Your task to perform on an android device: Open Chrome and go to the settings page Image 0: 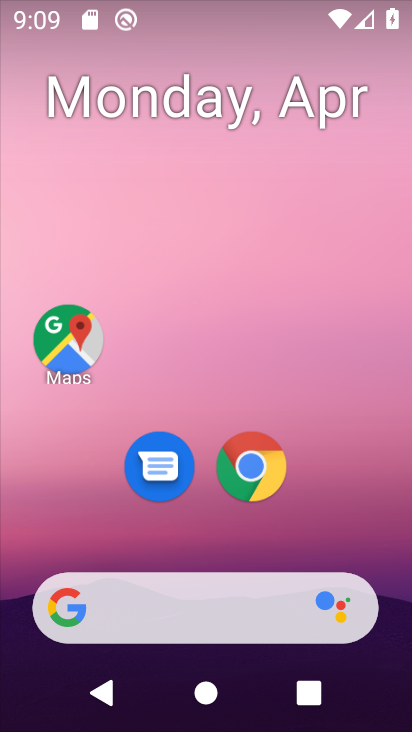
Step 0: click (244, 478)
Your task to perform on an android device: Open Chrome and go to the settings page Image 1: 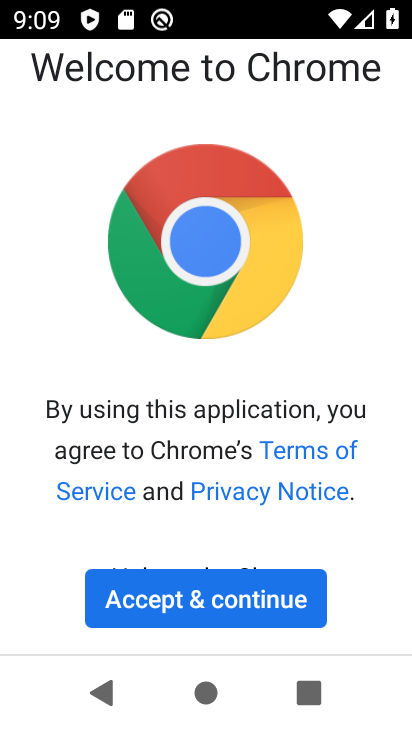
Step 1: click (246, 596)
Your task to perform on an android device: Open Chrome and go to the settings page Image 2: 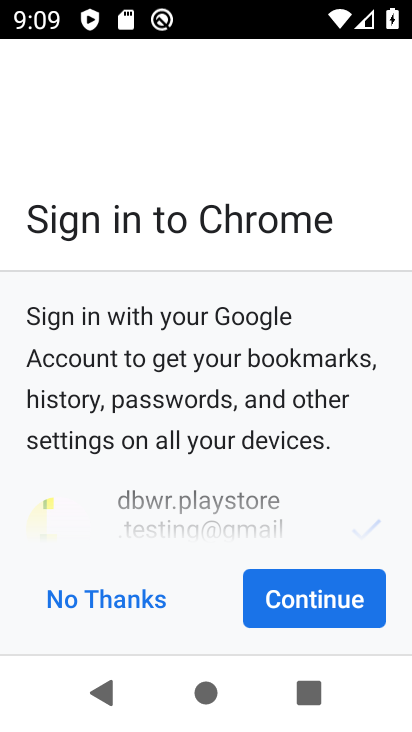
Step 2: click (293, 587)
Your task to perform on an android device: Open Chrome and go to the settings page Image 3: 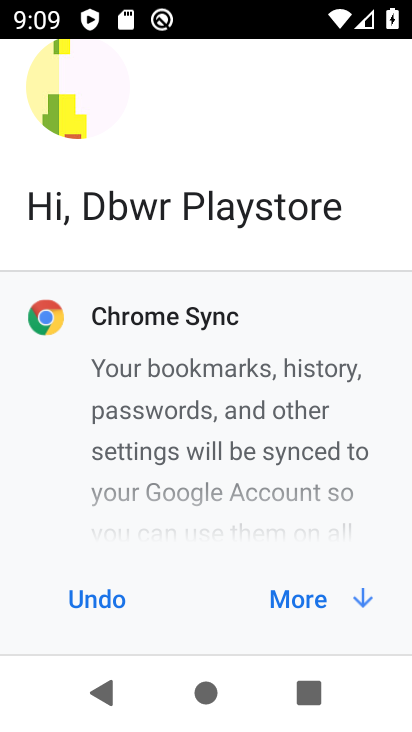
Step 3: click (300, 608)
Your task to perform on an android device: Open Chrome and go to the settings page Image 4: 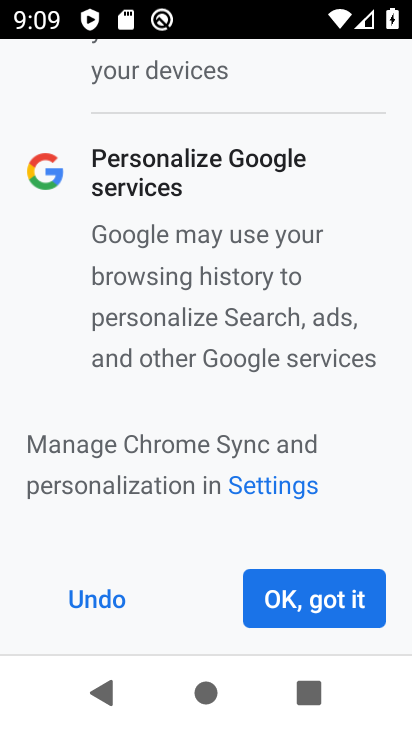
Step 4: click (339, 596)
Your task to perform on an android device: Open Chrome and go to the settings page Image 5: 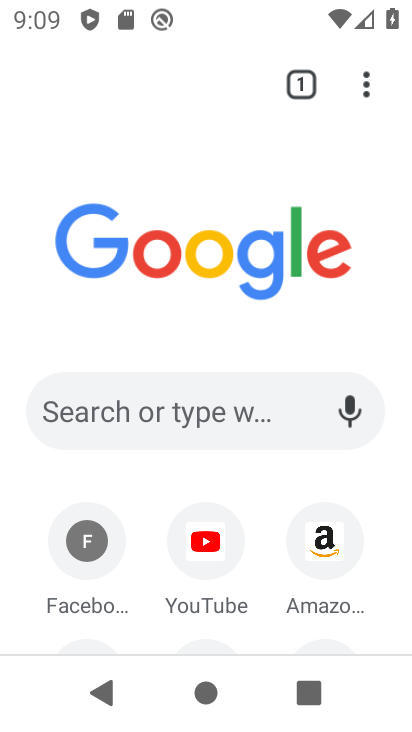
Step 5: click (372, 92)
Your task to perform on an android device: Open Chrome and go to the settings page Image 6: 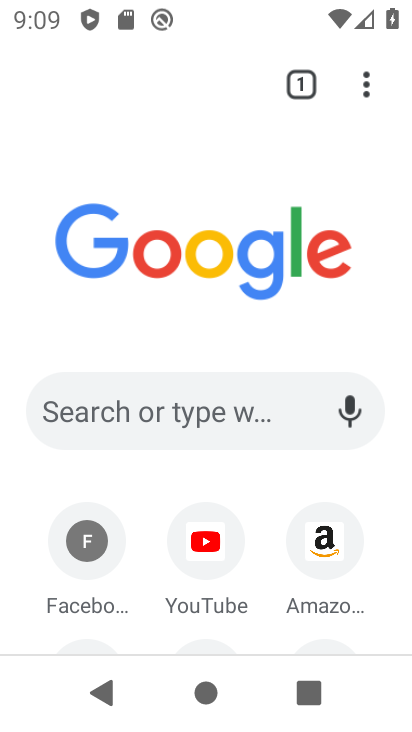
Step 6: click (363, 82)
Your task to perform on an android device: Open Chrome and go to the settings page Image 7: 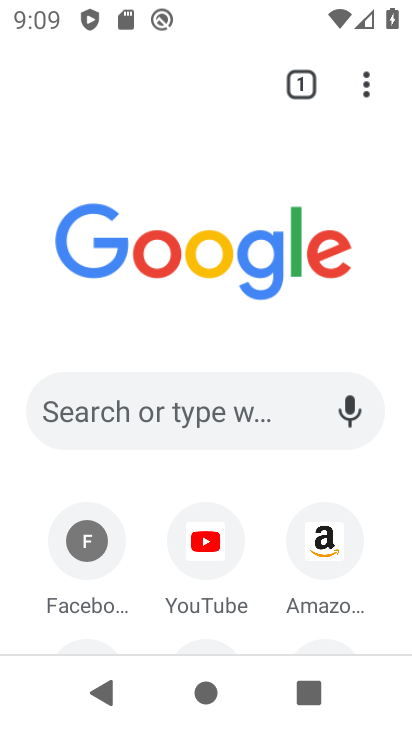
Step 7: click (363, 82)
Your task to perform on an android device: Open Chrome and go to the settings page Image 8: 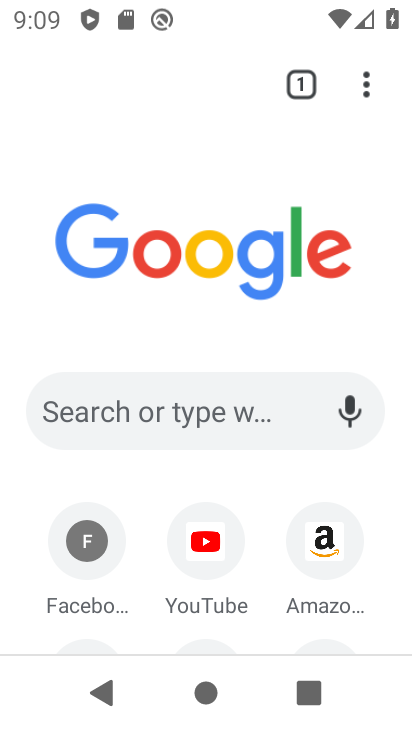
Step 8: click (358, 89)
Your task to perform on an android device: Open Chrome and go to the settings page Image 9: 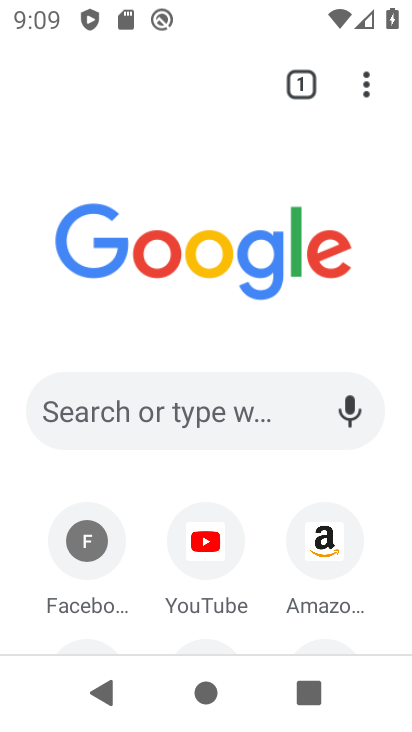
Step 9: click (358, 89)
Your task to perform on an android device: Open Chrome and go to the settings page Image 10: 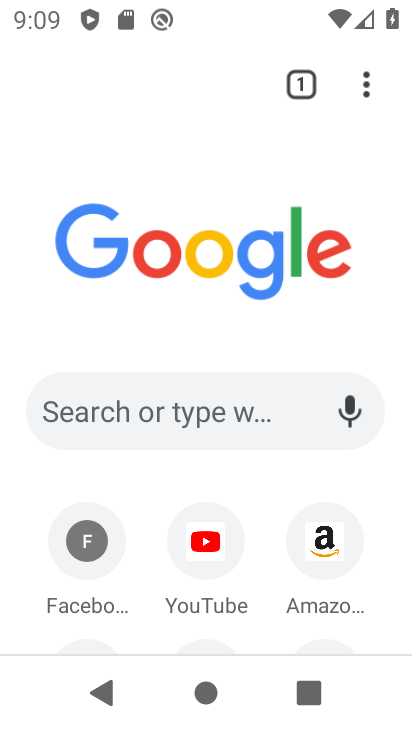
Step 10: click (364, 100)
Your task to perform on an android device: Open Chrome and go to the settings page Image 11: 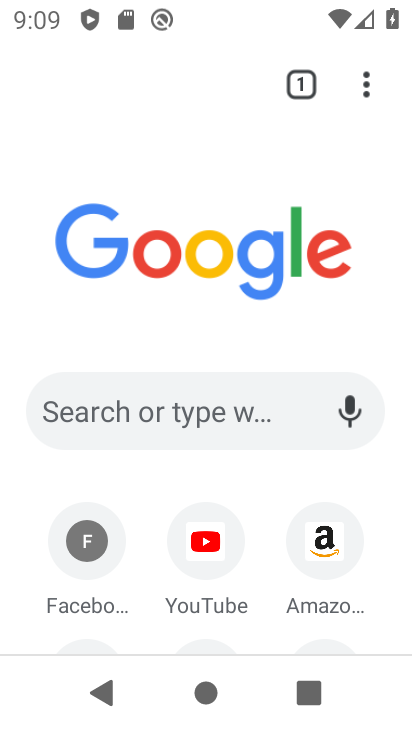
Step 11: click (362, 90)
Your task to perform on an android device: Open Chrome and go to the settings page Image 12: 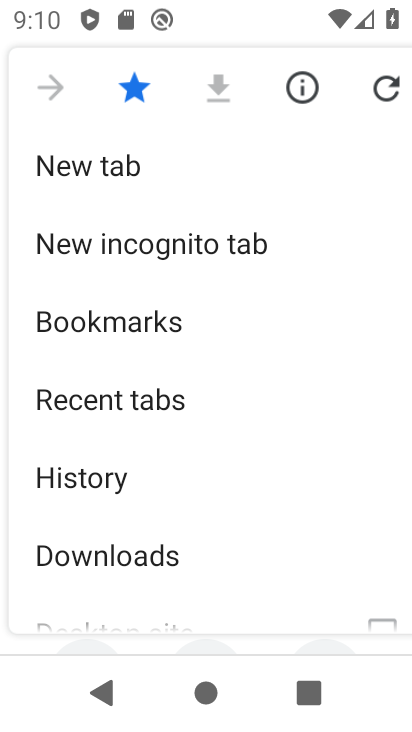
Step 12: drag from (147, 476) to (82, 117)
Your task to perform on an android device: Open Chrome and go to the settings page Image 13: 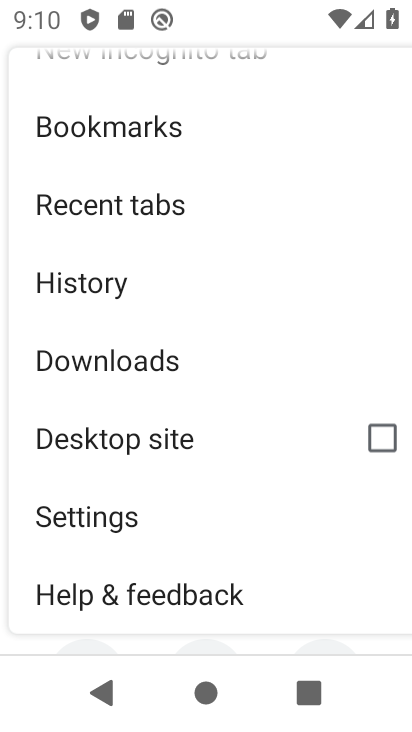
Step 13: click (117, 513)
Your task to perform on an android device: Open Chrome and go to the settings page Image 14: 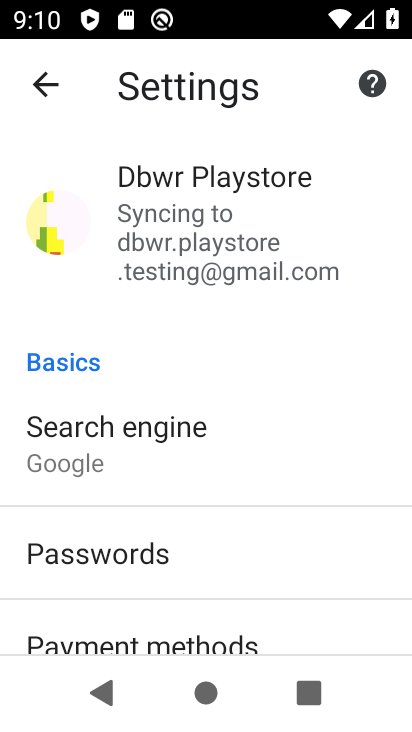
Step 14: task complete